Your task to perform on an android device: Open the map Image 0: 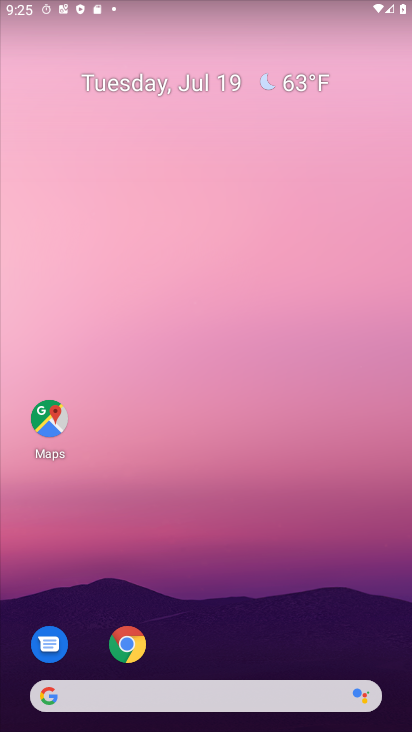
Step 0: click (221, 125)
Your task to perform on an android device: Open the map Image 1: 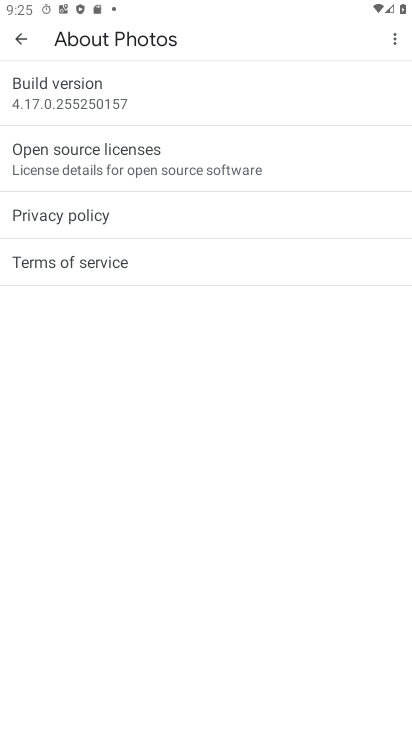
Step 1: click (13, 40)
Your task to perform on an android device: Open the map Image 2: 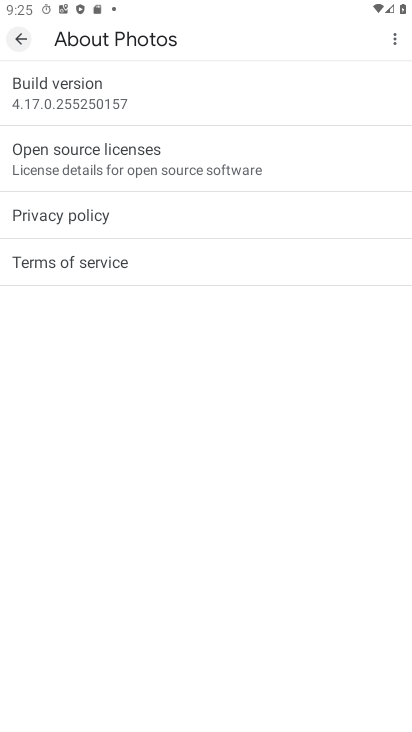
Step 2: click (14, 37)
Your task to perform on an android device: Open the map Image 3: 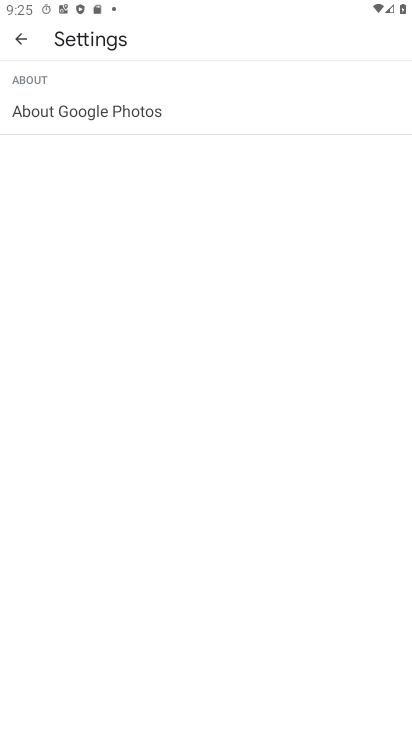
Step 3: click (19, 26)
Your task to perform on an android device: Open the map Image 4: 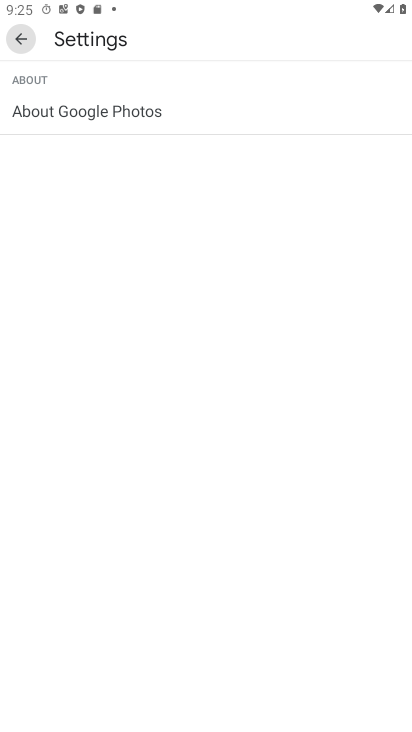
Step 4: click (20, 34)
Your task to perform on an android device: Open the map Image 5: 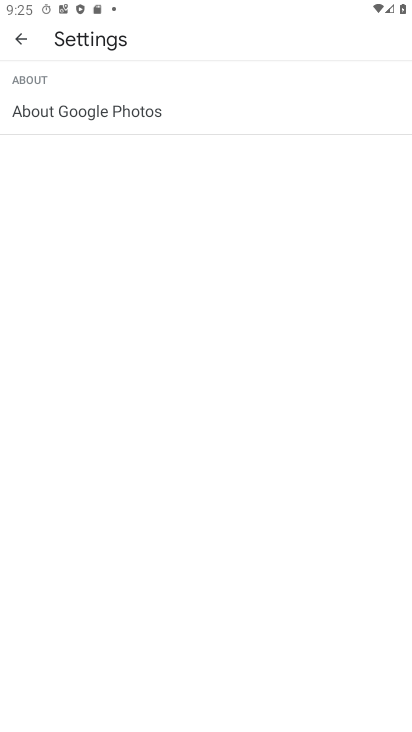
Step 5: click (24, 33)
Your task to perform on an android device: Open the map Image 6: 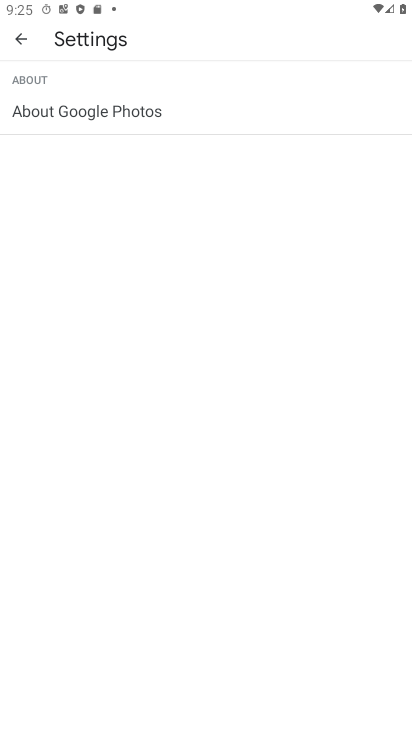
Step 6: click (25, 33)
Your task to perform on an android device: Open the map Image 7: 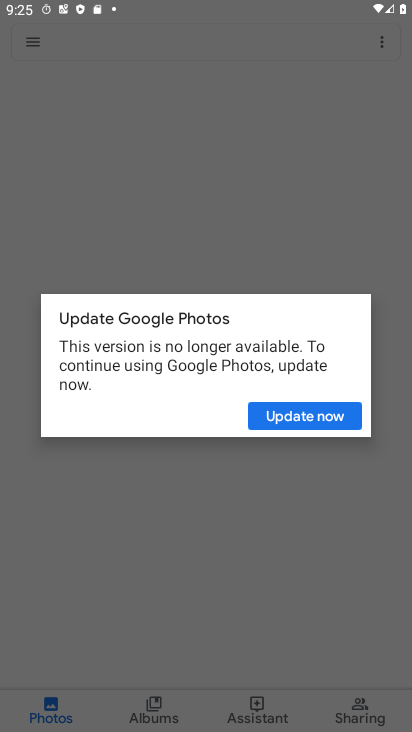
Step 7: click (236, 210)
Your task to perform on an android device: Open the map Image 8: 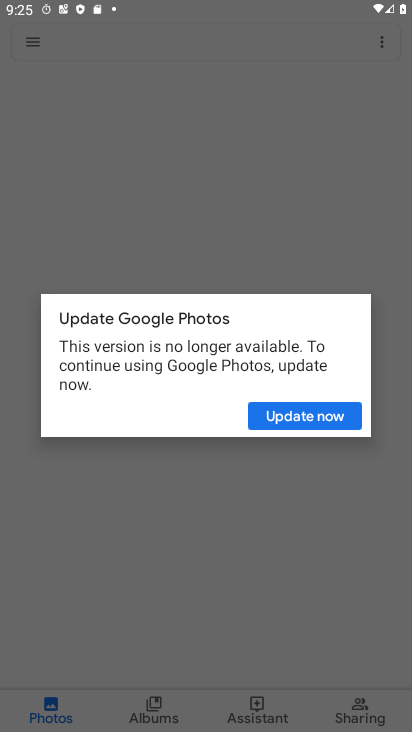
Step 8: click (238, 208)
Your task to perform on an android device: Open the map Image 9: 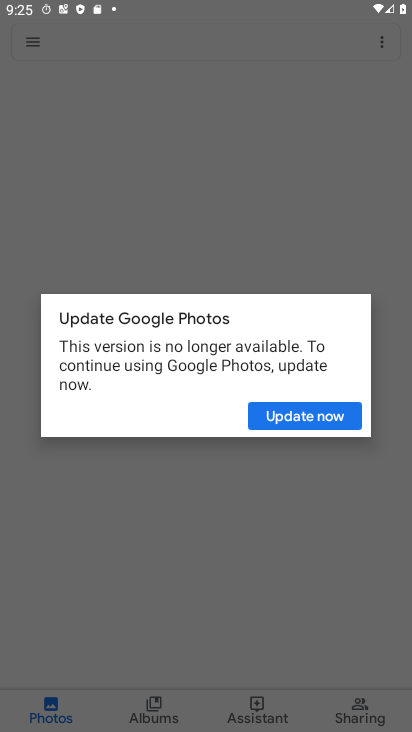
Step 9: click (238, 208)
Your task to perform on an android device: Open the map Image 10: 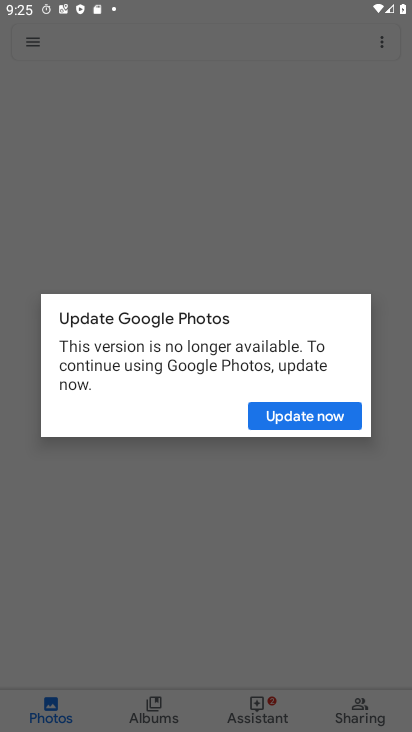
Step 10: click (239, 209)
Your task to perform on an android device: Open the map Image 11: 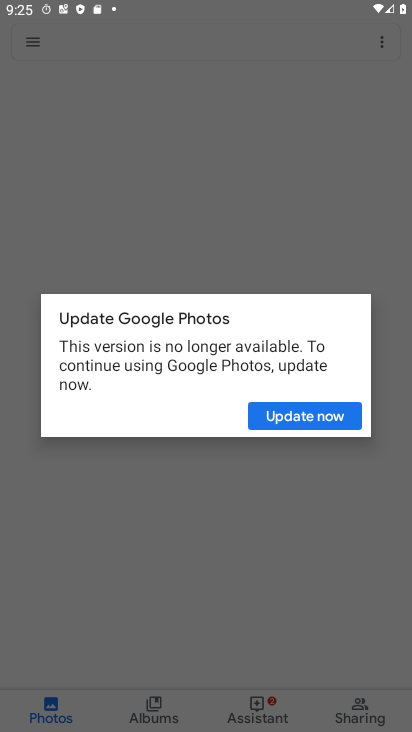
Step 11: click (238, 210)
Your task to perform on an android device: Open the map Image 12: 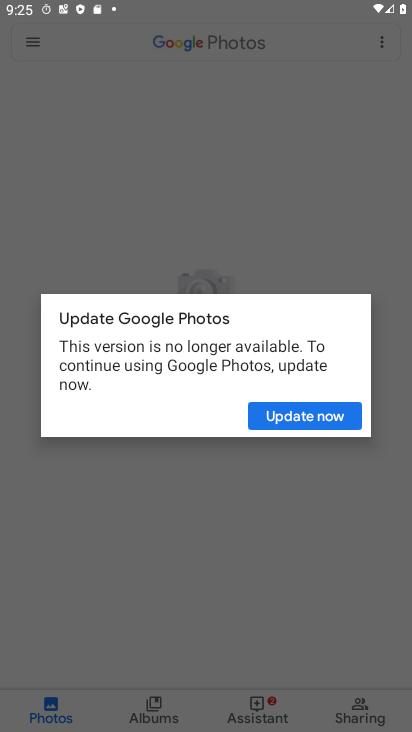
Step 12: press back button
Your task to perform on an android device: Open the map Image 13: 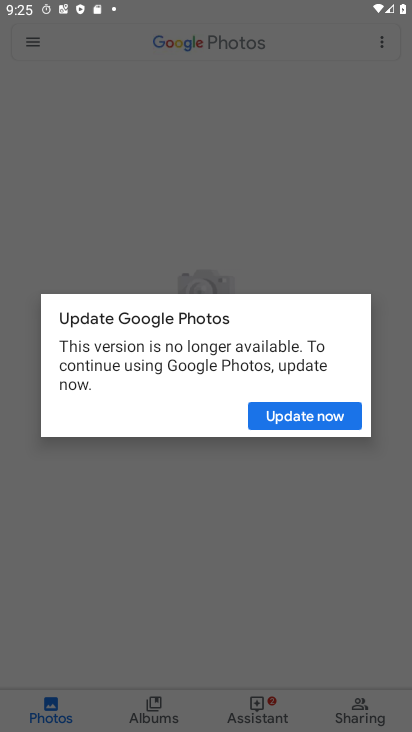
Step 13: press back button
Your task to perform on an android device: Open the map Image 14: 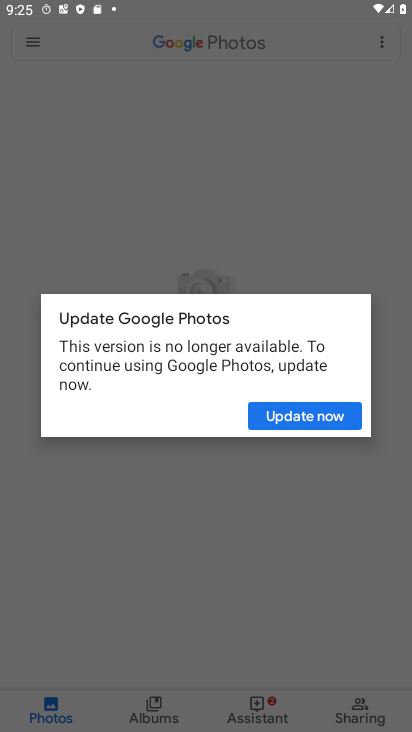
Step 14: press back button
Your task to perform on an android device: Open the map Image 15: 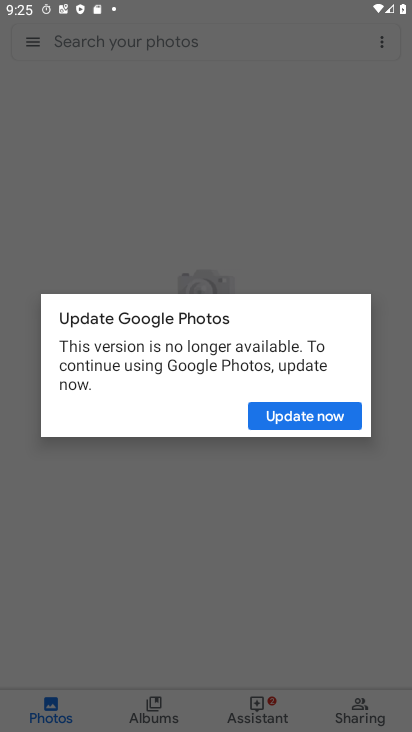
Step 15: press home button
Your task to perform on an android device: Open the map Image 16: 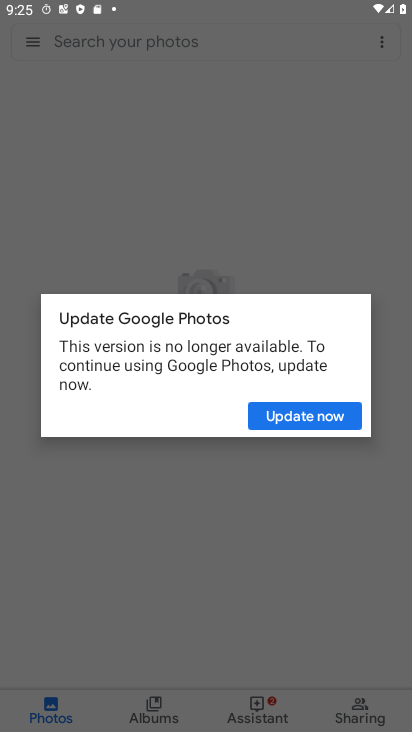
Step 16: press home button
Your task to perform on an android device: Open the map Image 17: 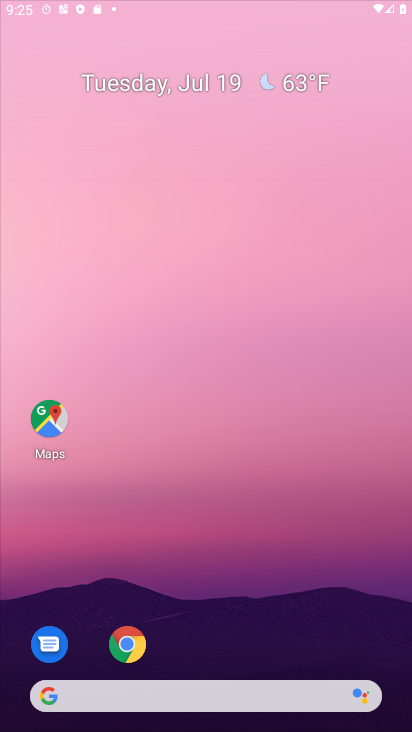
Step 17: press home button
Your task to perform on an android device: Open the map Image 18: 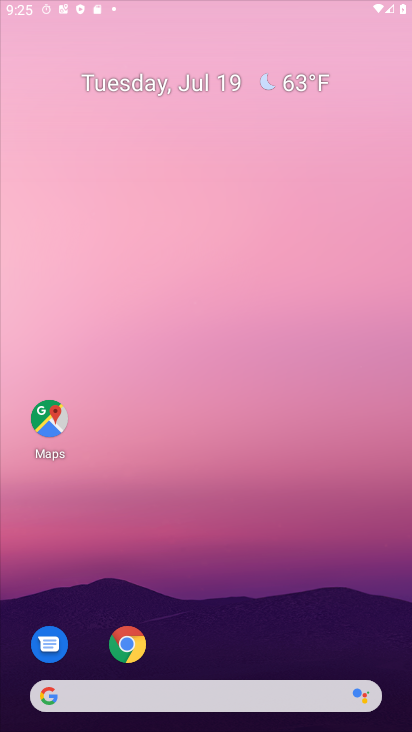
Step 18: click (281, 168)
Your task to perform on an android device: Open the map Image 19: 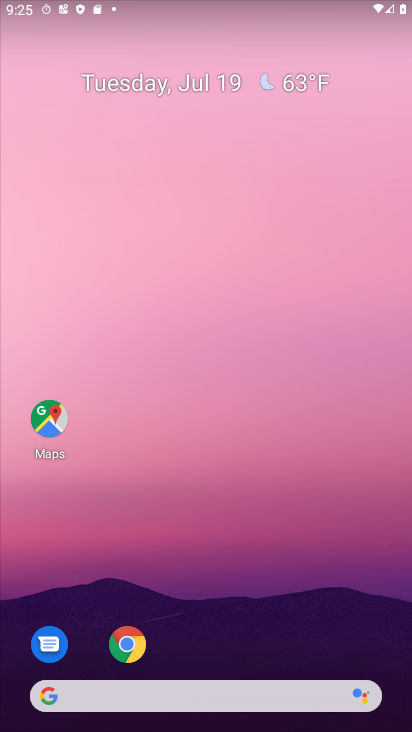
Step 19: drag from (185, 660) to (239, 179)
Your task to perform on an android device: Open the map Image 20: 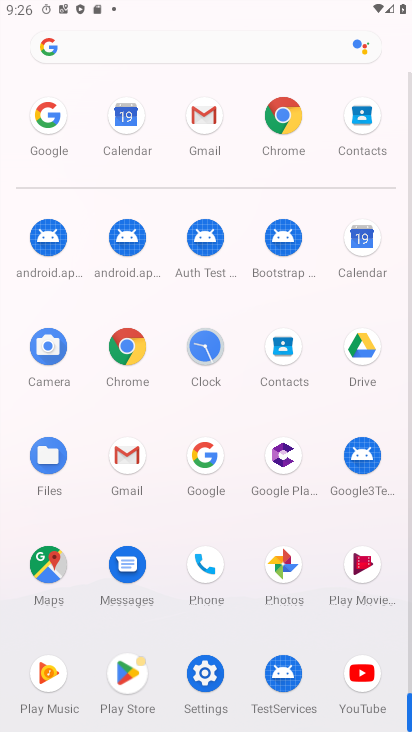
Step 20: click (43, 555)
Your task to perform on an android device: Open the map Image 21: 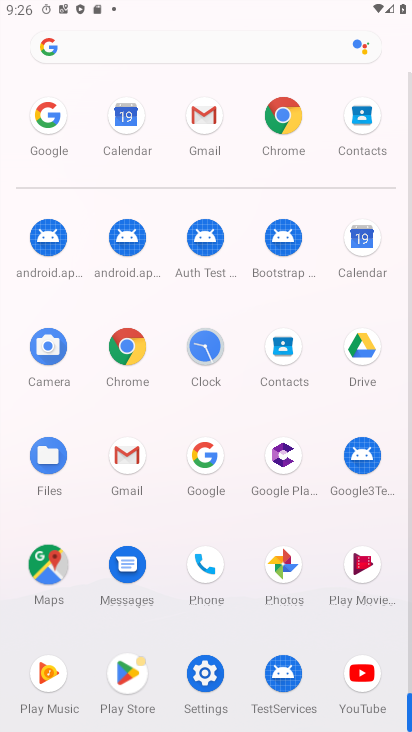
Step 21: task complete